Your task to perform on an android device: set default search engine in the chrome app Image 0: 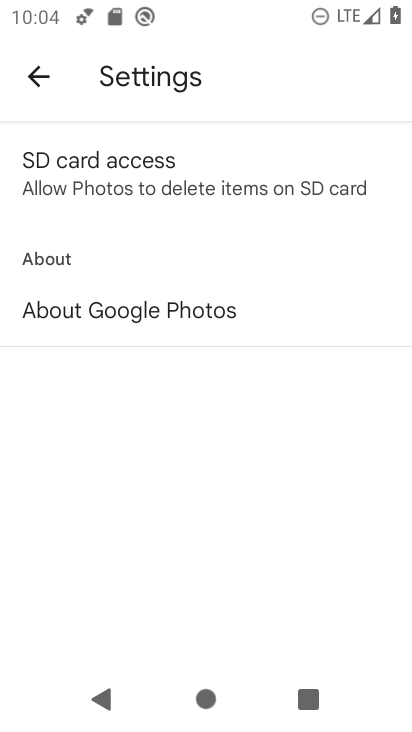
Step 0: press home button
Your task to perform on an android device: set default search engine in the chrome app Image 1: 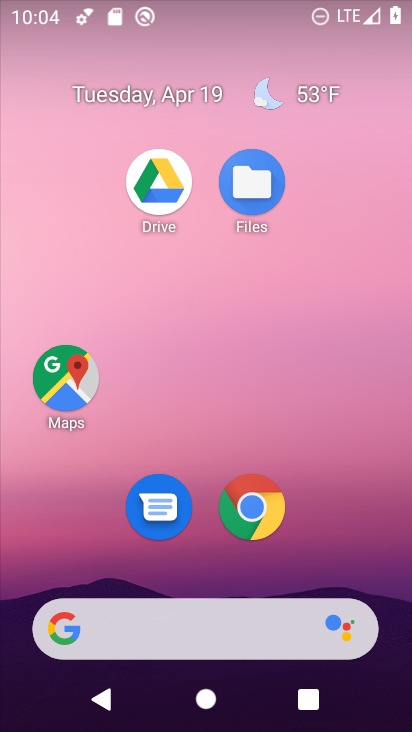
Step 1: click (261, 515)
Your task to perform on an android device: set default search engine in the chrome app Image 2: 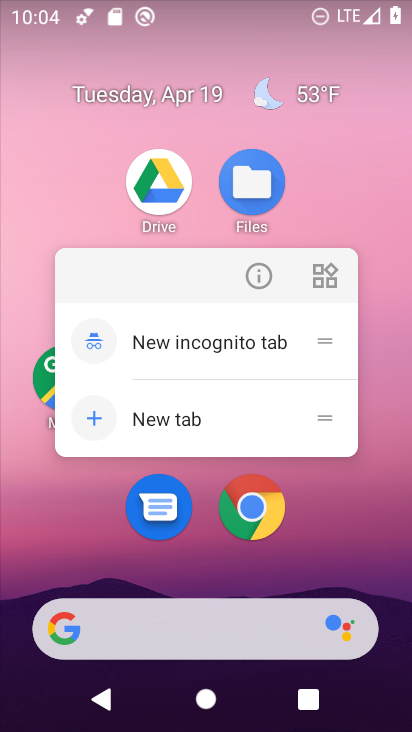
Step 2: click (261, 515)
Your task to perform on an android device: set default search engine in the chrome app Image 3: 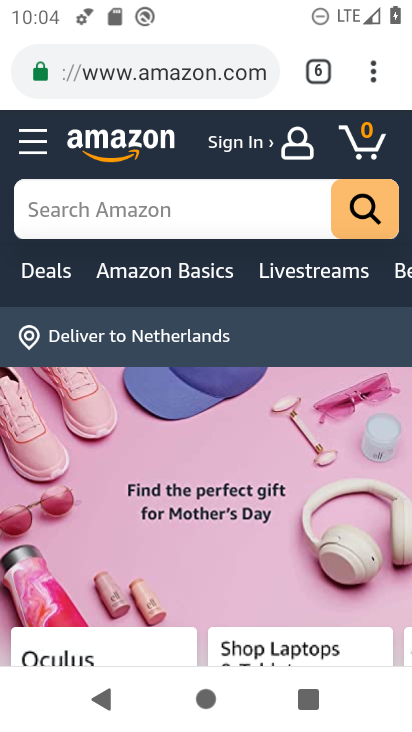
Step 3: drag from (371, 66) to (236, 503)
Your task to perform on an android device: set default search engine in the chrome app Image 4: 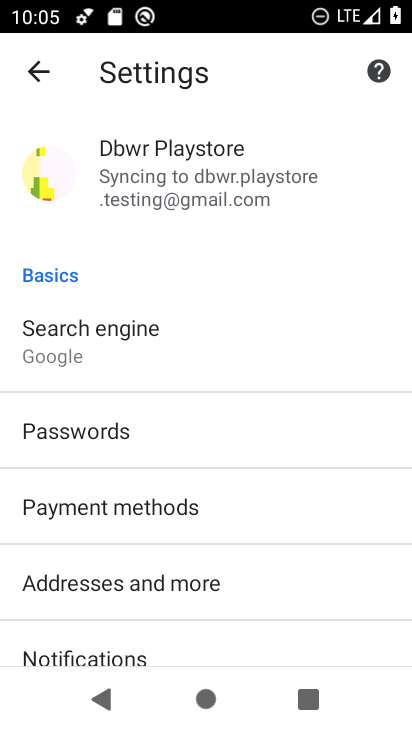
Step 4: click (139, 344)
Your task to perform on an android device: set default search engine in the chrome app Image 5: 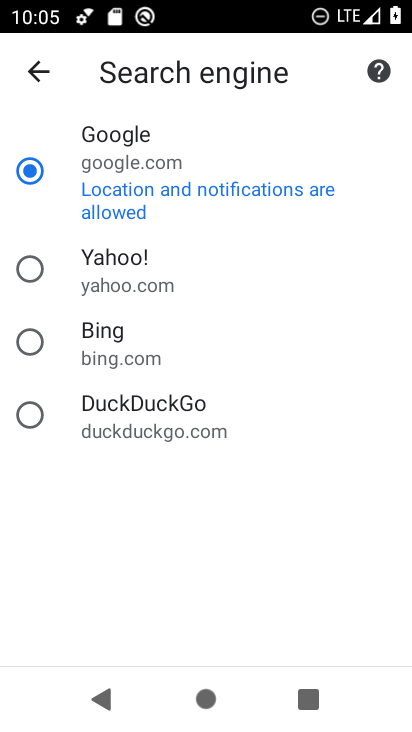
Step 5: task complete